Your task to perform on an android device: Check the weather Image 0: 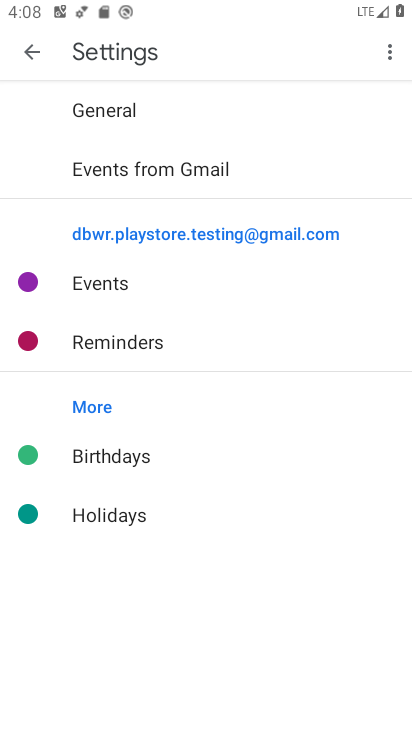
Step 0: press home button
Your task to perform on an android device: Check the weather Image 1: 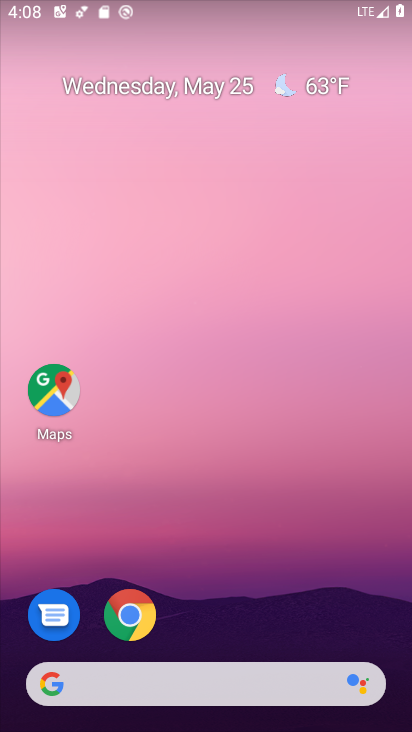
Step 1: click (319, 83)
Your task to perform on an android device: Check the weather Image 2: 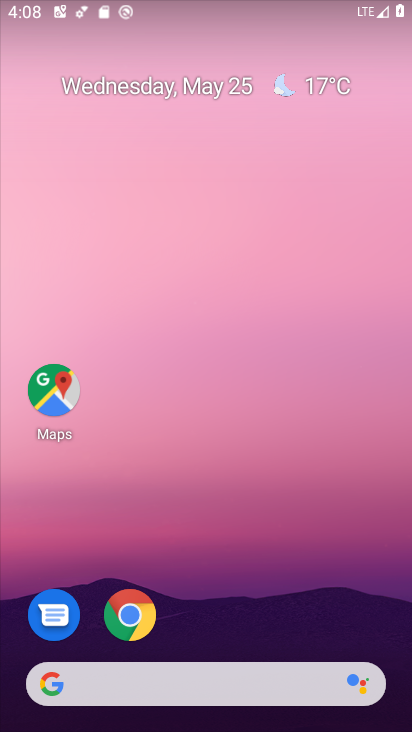
Step 2: click (329, 78)
Your task to perform on an android device: Check the weather Image 3: 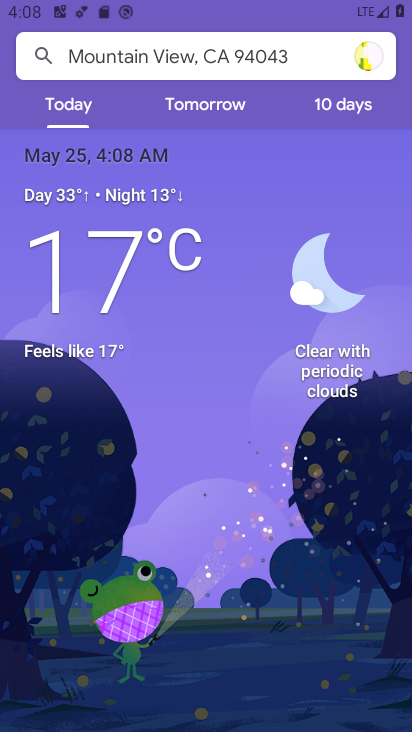
Step 3: task complete